Your task to perform on an android device: Clear the shopping cart on amazon.com. Search for "macbook pro" on amazon.com, select the first entry, and add it to the cart. Image 0: 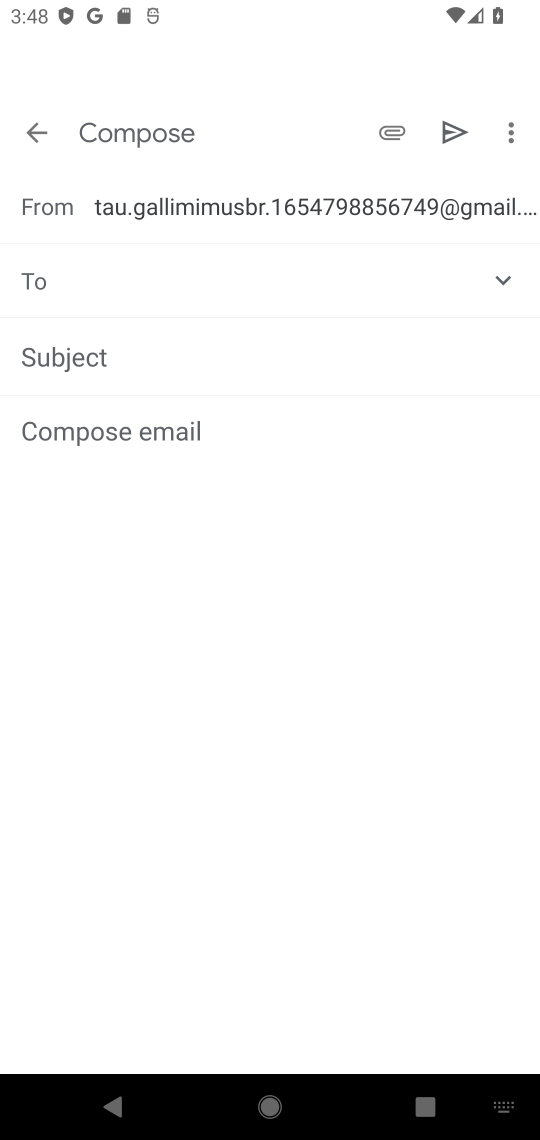
Step 0: press home button
Your task to perform on an android device: Clear the shopping cart on amazon.com. Search for "macbook pro" on amazon.com, select the first entry, and add it to the cart. Image 1: 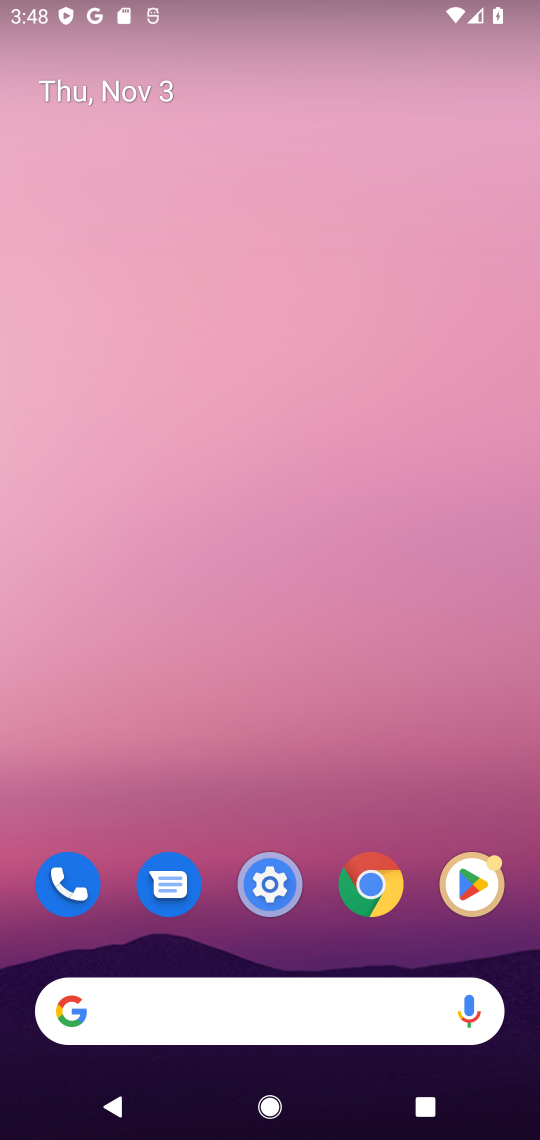
Step 1: click (104, 1006)
Your task to perform on an android device: Clear the shopping cart on amazon.com. Search for "macbook pro" on amazon.com, select the first entry, and add it to the cart. Image 2: 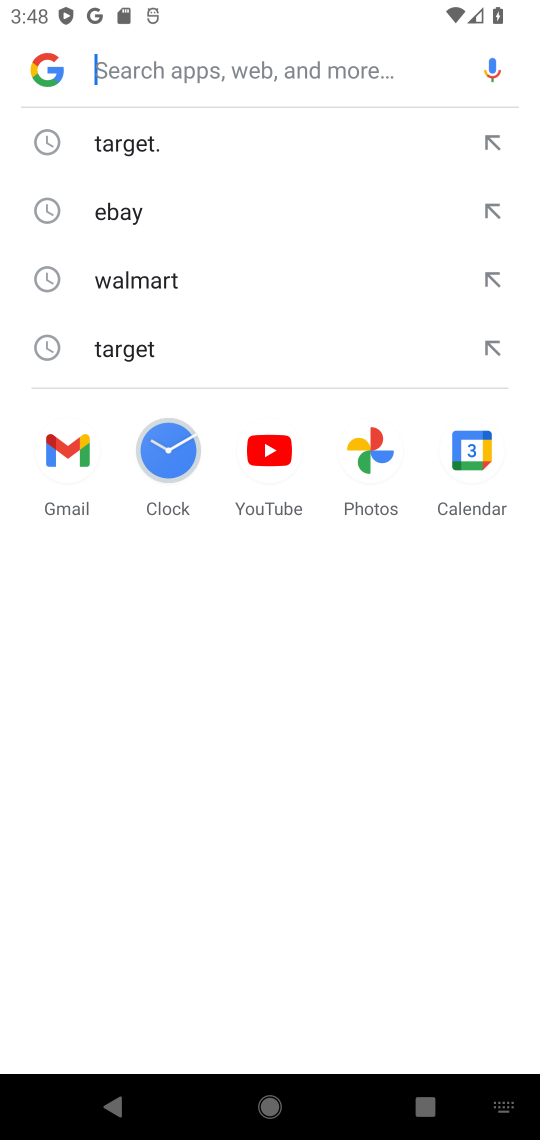
Step 2: type "amazon.com"
Your task to perform on an android device: Clear the shopping cart on amazon.com. Search for "macbook pro" on amazon.com, select the first entry, and add it to the cart. Image 3: 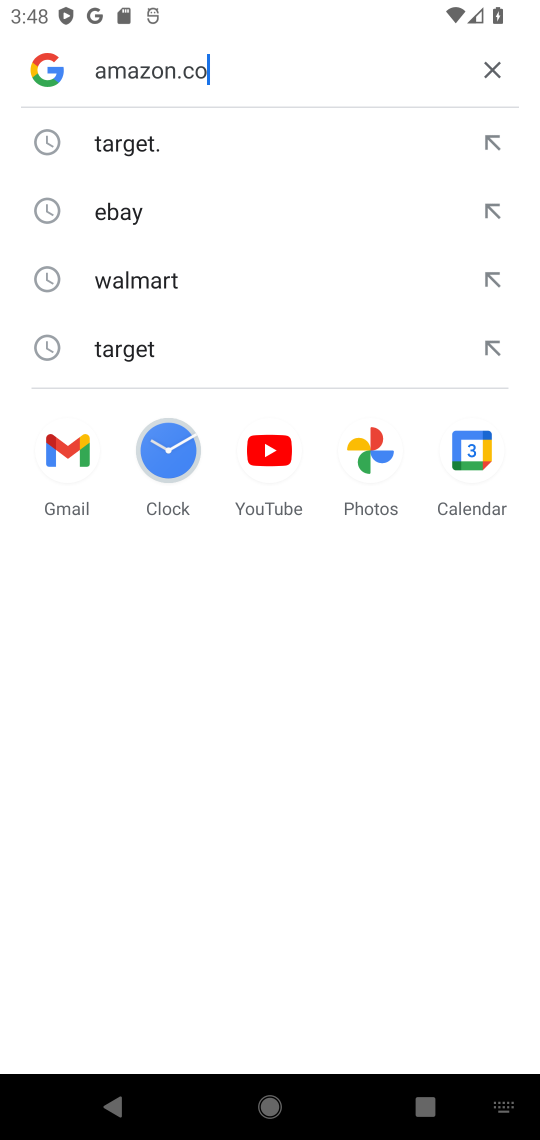
Step 3: press enter
Your task to perform on an android device: Clear the shopping cart on amazon.com. Search for "macbook pro" on amazon.com, select the first entry, and add it to the cart. Image 4: 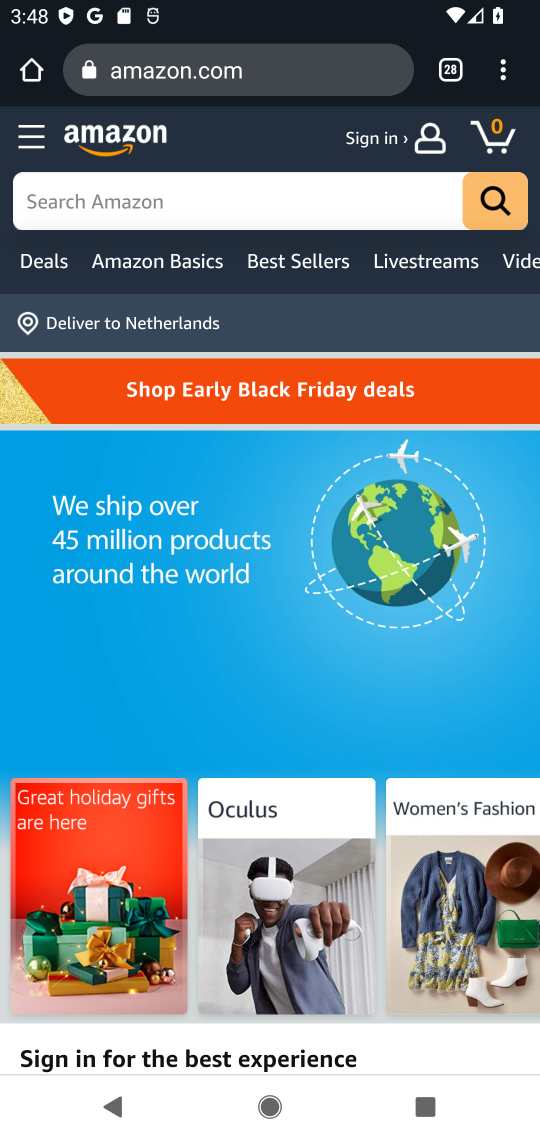
Step 4: click (488, 130)
Your task to perform on an android device: Clear the shopping cart on amazon.com. Search for "macbook pro" on amazon.com, select the first entry, and add it to the cart. Image 5: 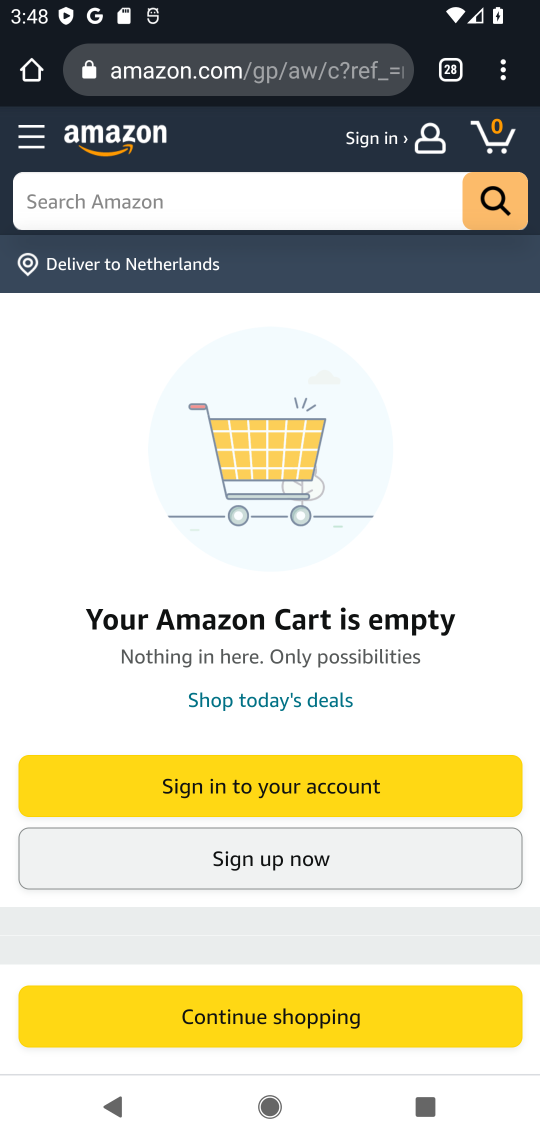
Step 5: click (54, 196)
Your task to perform on an android device: Clear the shopping cart on amazon.com. Search for "macbook pro" on amazon.com, select the first entry, and add it to the cart. Image 6: 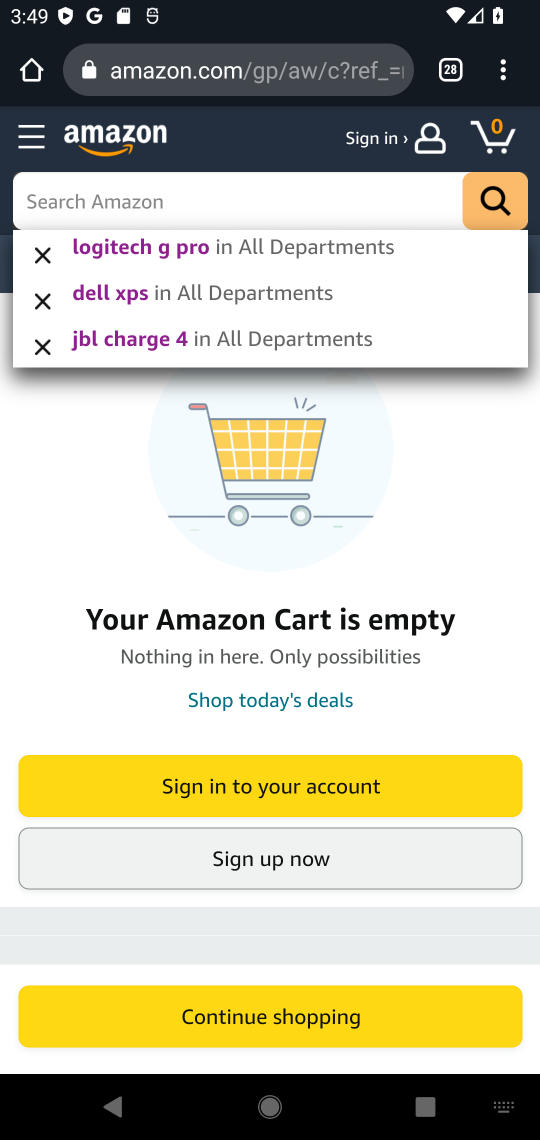
Step 6: type "macbook pro"
Your task to perform on an android device: Clear the shopping cart on amazon.com. Search for "macbook pro" on amazon.com, select the first entry, and add it to the cart. Image 7: 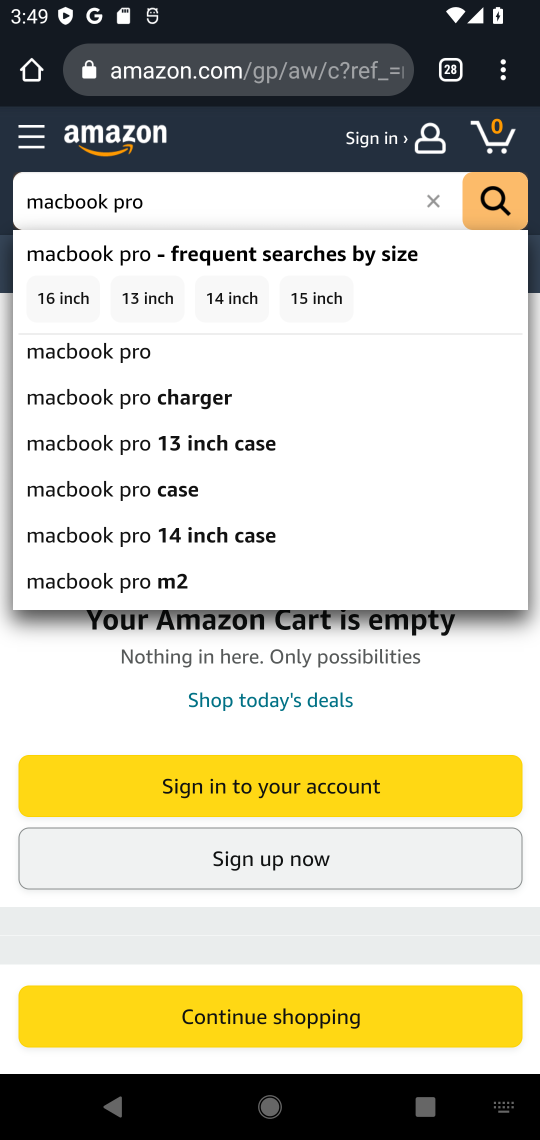
Step 7: click (494, 193)
Your task to perform on an android device: Clear the shopping cart on amazon.com. Search for "macbook pro" on amazon.com, select the first entry, and add it to the cart. Image 8: 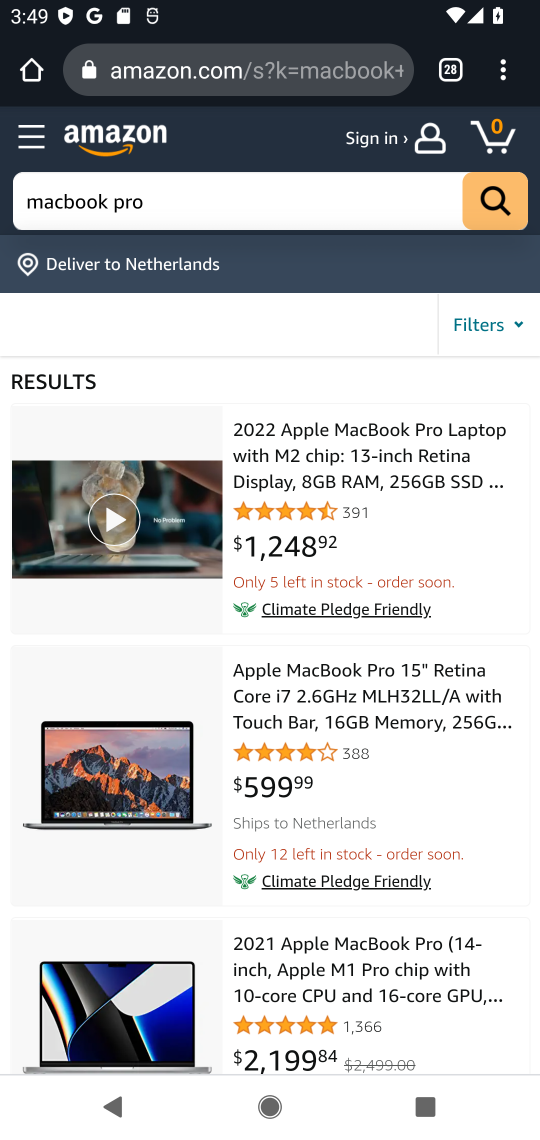
Step 8: click (318, 450)
Your task to perform on an android device: Clear the shopping cart on amazon.com. Search for "macbook pro" on amazon.com, select the first entry, and add it to the cart. Image 9: 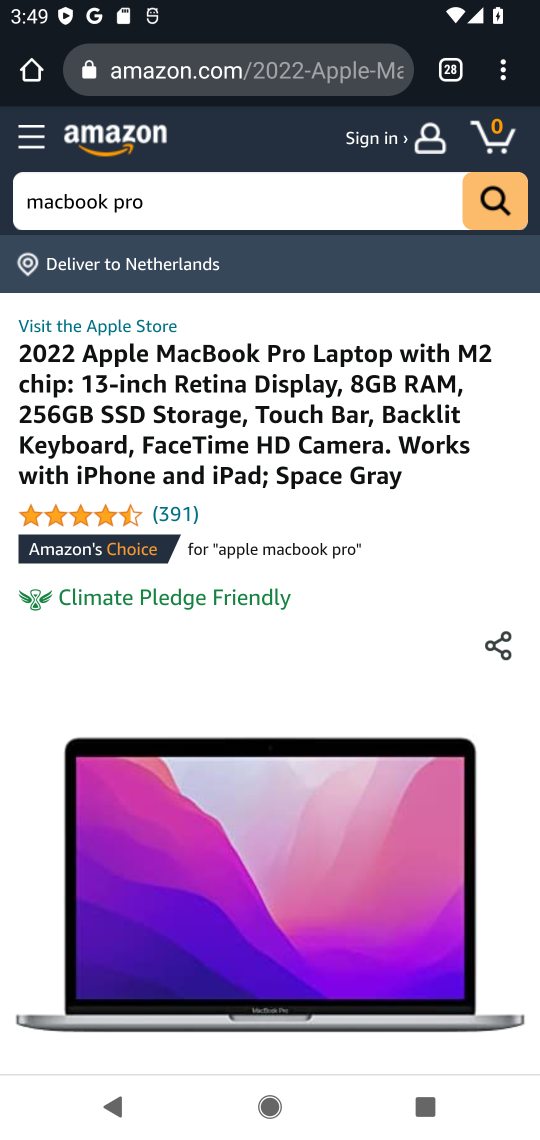
Step 9: drag from (410, 837) to (410, 538)
Your task to perform on an android device: Clear the shopping cart on amazon.com. Search for "macbook pro" on amazon.com, select the first entry, and add it to the cart. Image 10: 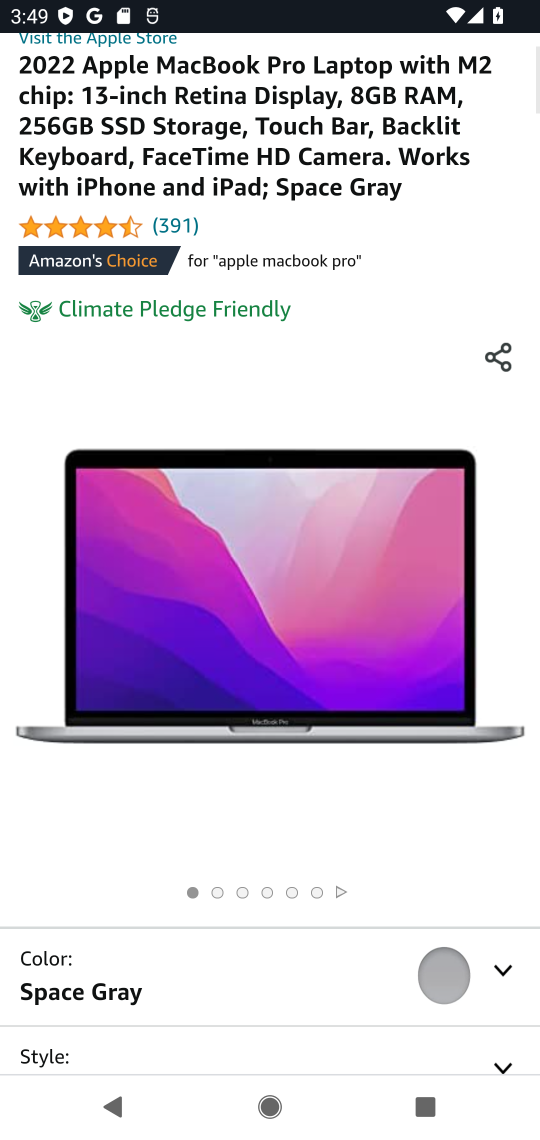
Step 10: drag from (328, 874) to (328, 490)
Your task to perform on an android device: Clear the shopping cart on amazon.com. Search for "macbook pro" on amazon.com, select the first entry, and add it to the cart. Image 11: 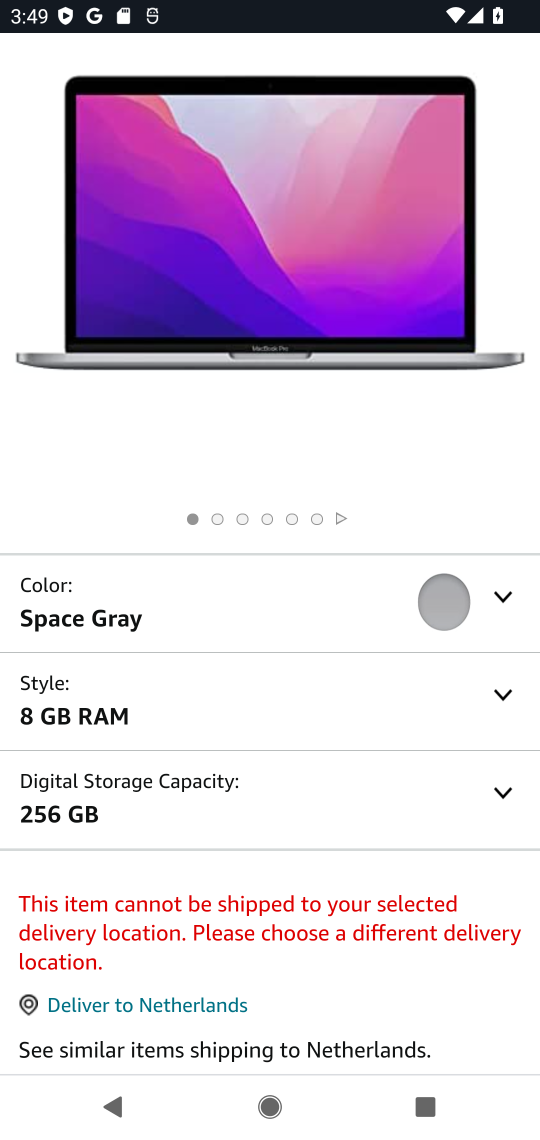
Step 11: drag from (299, 964) to (310, 448)
Your task to perform on an android device: Clear the shopping cart on amazon.com. Search for "macbook pro" on amazon.com, select the first entry, and add it to the cart. Image 12: 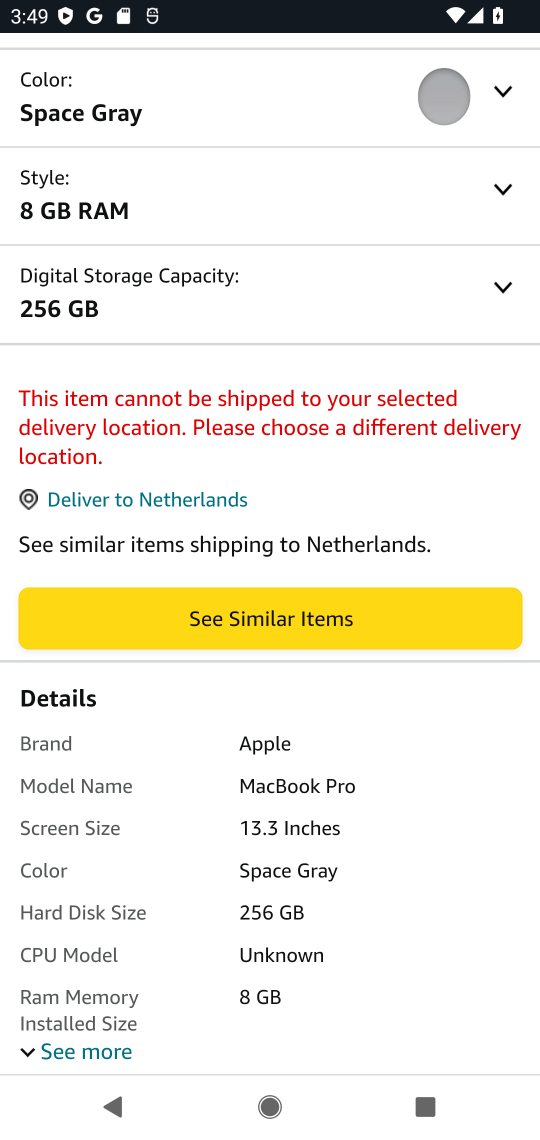
Step 12: press back button
Your task to perform on an android device: Clear the shopping cart on amazon.com. Search for "macbook pro" on amazon.com, select the first entry, and add it to the cart. Image 13: 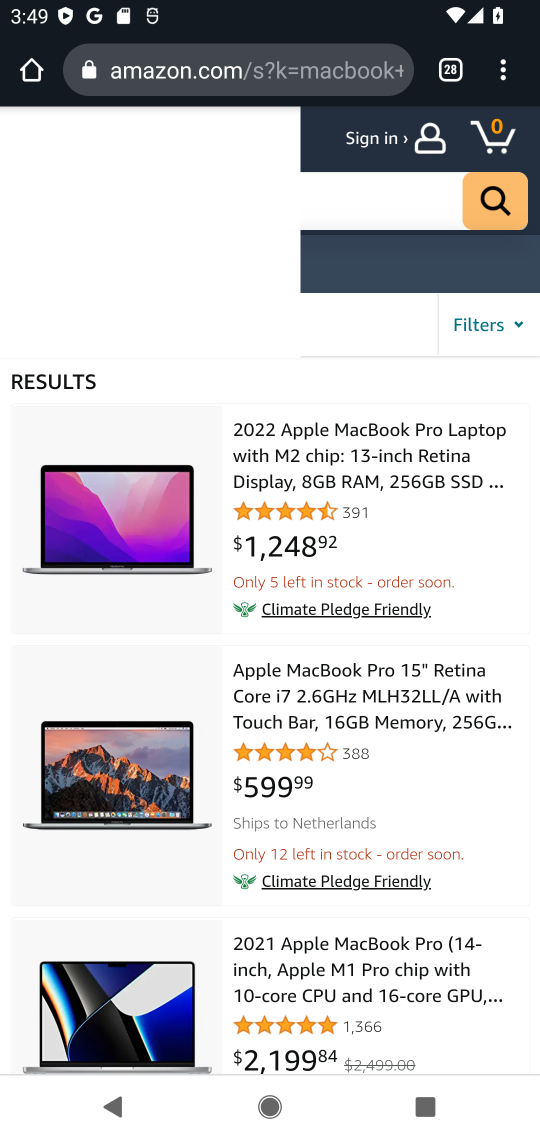
Step 13: click (359, 709)
Your task to perform on an android device: Clear the shopping cart on amazon.com. Search for "macbook pro" on amazon.com, select the first entry, and add it to the cart. Image 14: 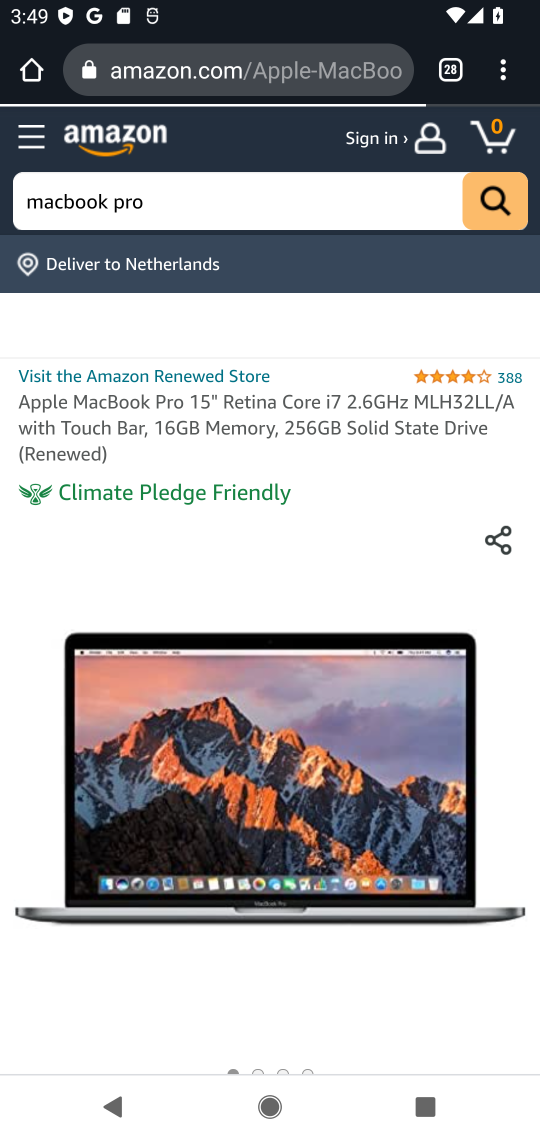
Step 14: drag from (342, 938) to (342, 416)
Your task to perform on an android device: Clear the shopping cart on amazon.com. Search for "macbook pro" on amazon.com, select the first entry, and add it to the cart. Image 15: 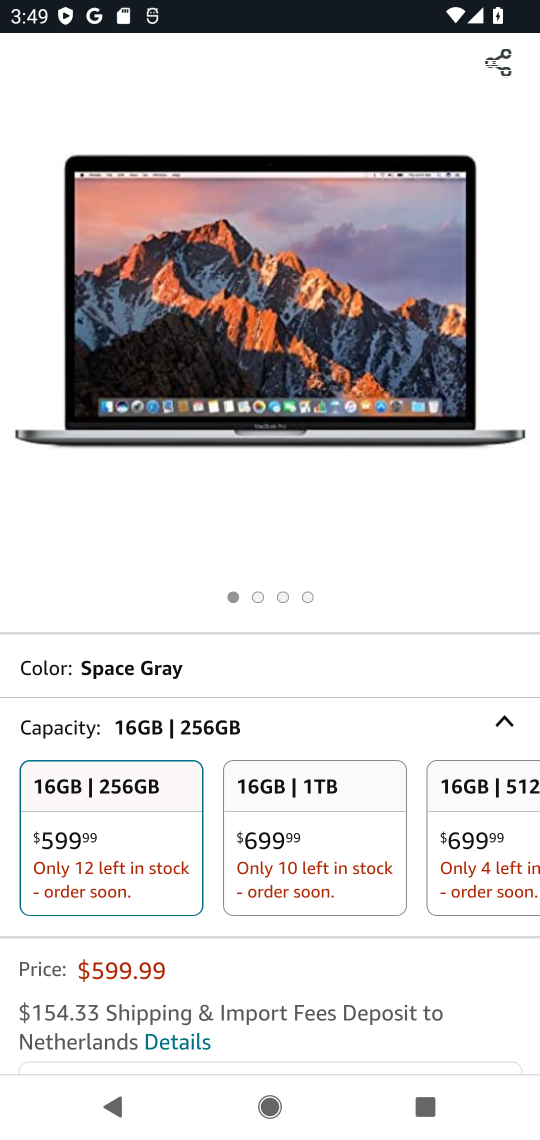
Step 15: drag from (322, 937) to (382, 355)
Your task to perform on an android device: Clear the shopping cart on amazon.com. Search for "macbook pro" on amazon.com, select the first entry, and add it to the cart. Image 16: 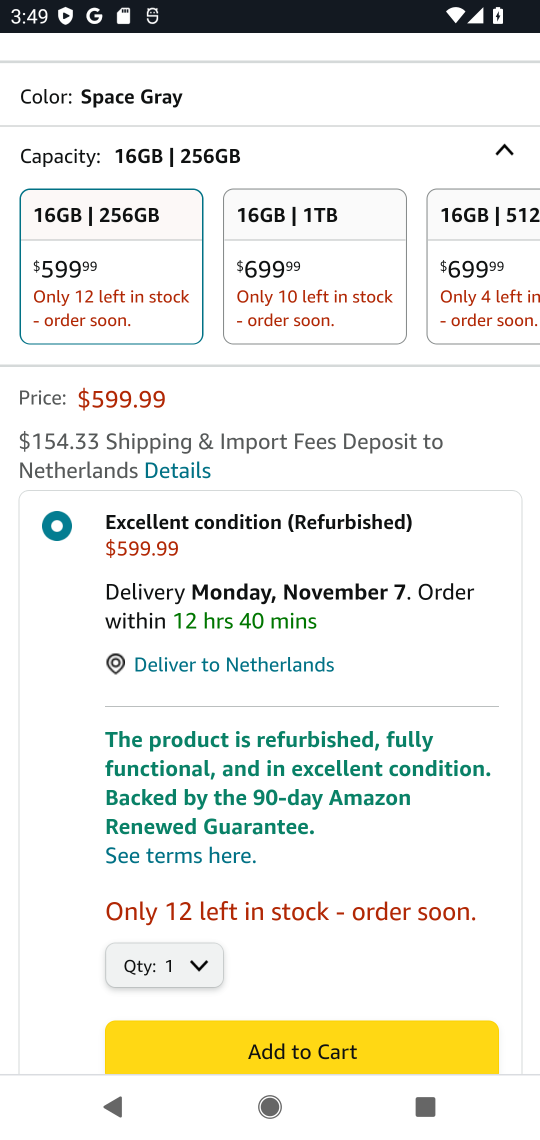
Step 16: drag from (323, 949) to (348, 422)
Your task to perform on an android device: Clear the shopping cart on amazon.com. Search for "macbook pro" on amazon.com, select the first entry, and add it to the cart. Image 17: 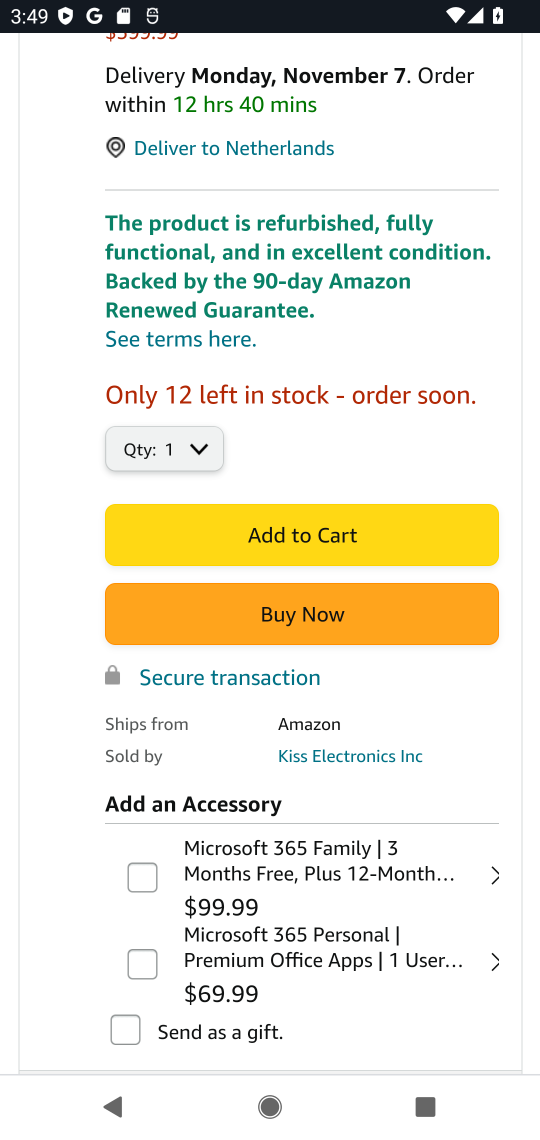
Step 17: click (273, 540)
Your task to perform on an android device: Clear the shopping cart on amazon.com. Search for "macbook pro" on amazon.com, select the first entry, and add it to the cart. Image 18: 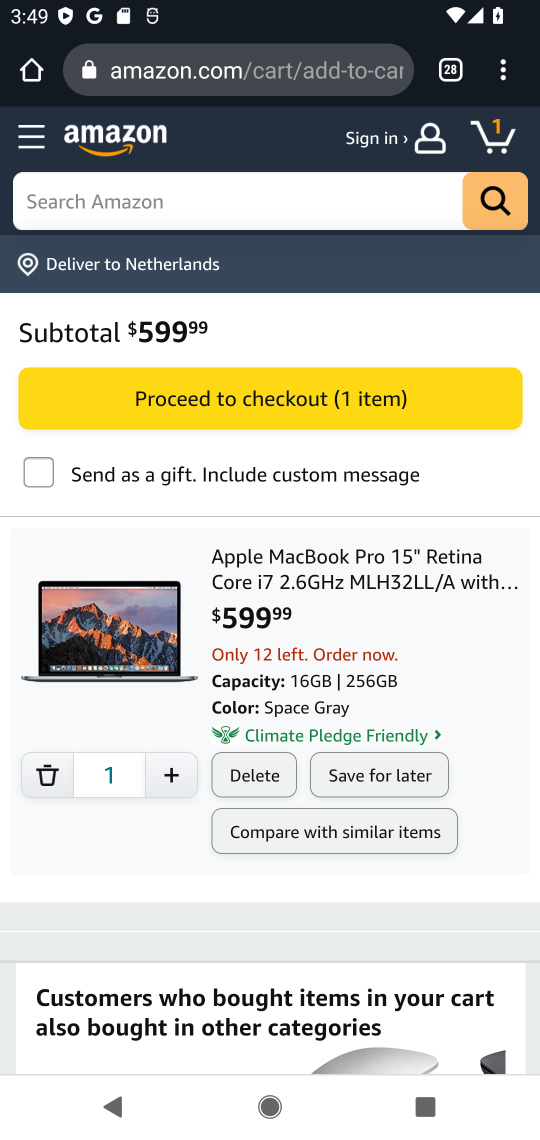
Step 18: task complete